Your task to perform on an android device: Open Google Maps Image 0: 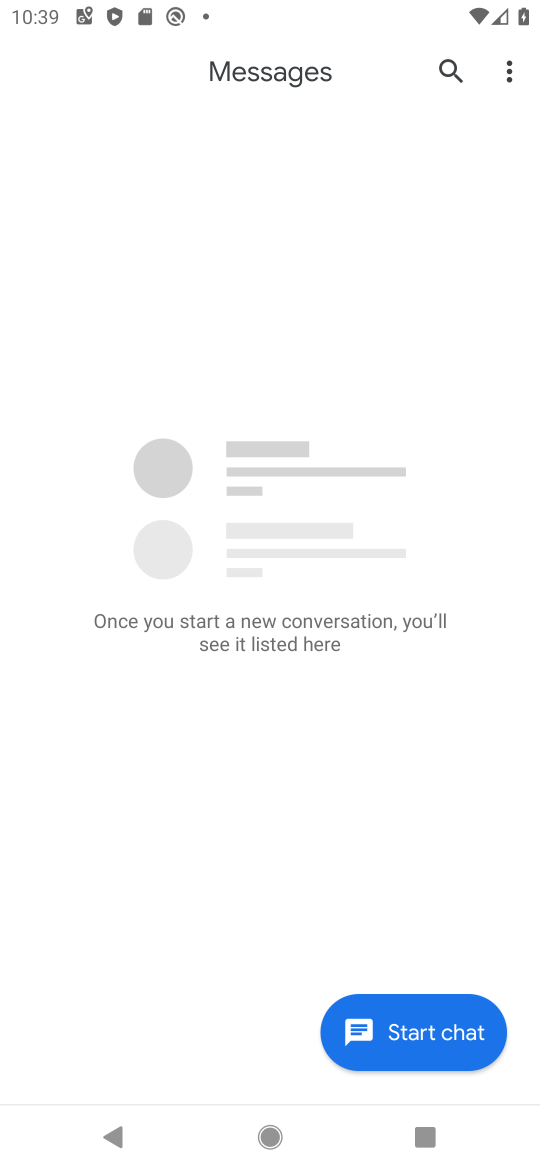
Step 0: press home button
Your task to perform on an android device: Open Google Maps Image 1: 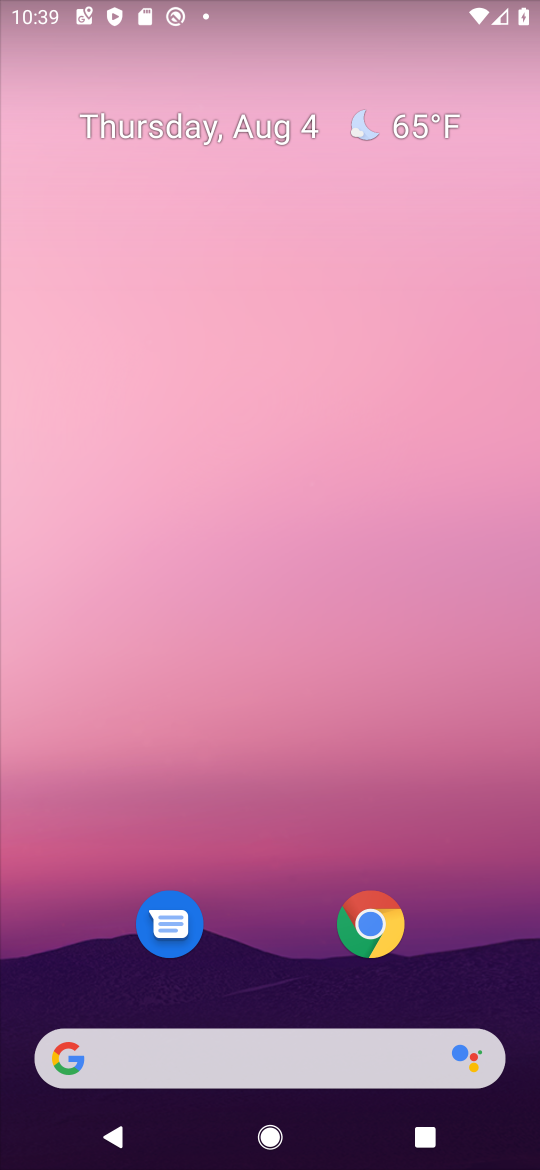
Step 1: drag from (266, 802) to (340, 1)
Your task to perform on an android device: Open Google Maps Image 2: 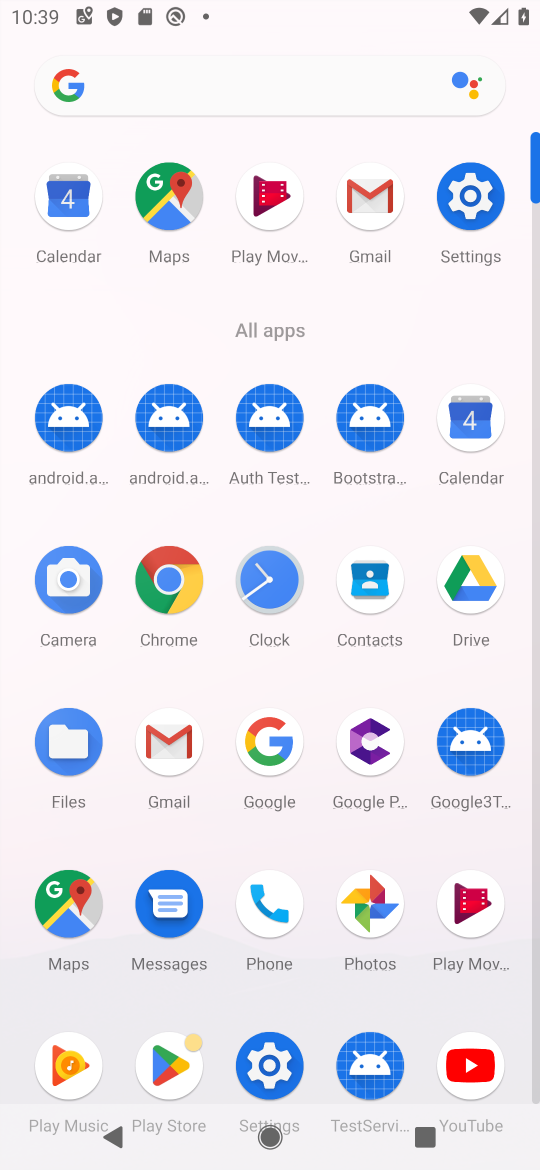
Step 2: click (169, 189)
Your task to perform on an android device: Open Google Maps Image 3: 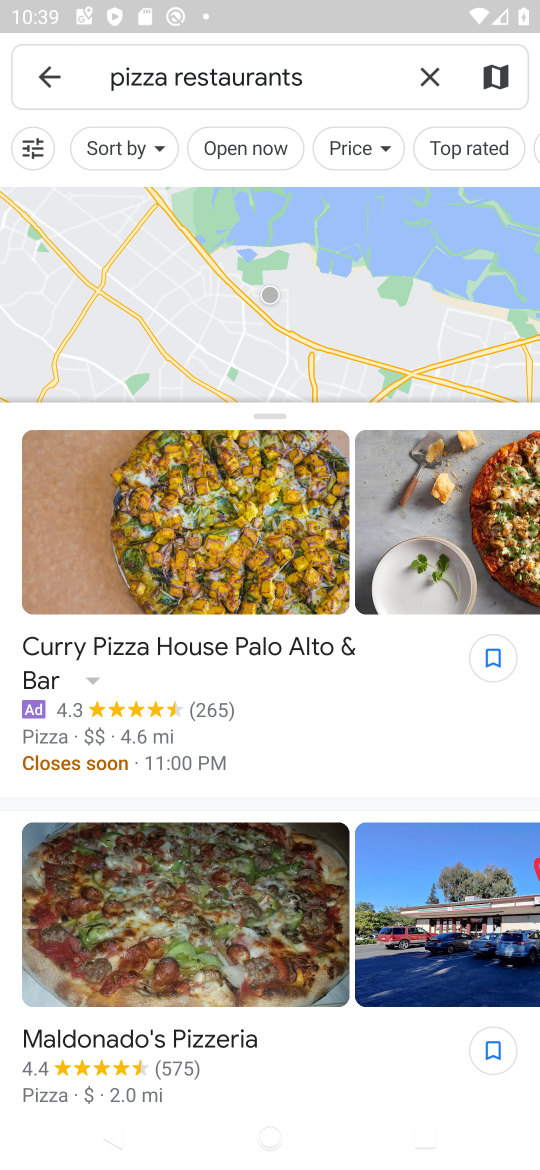
Step 3: task complete